Your task to perform on an android device: Go to Android settings Image 0: 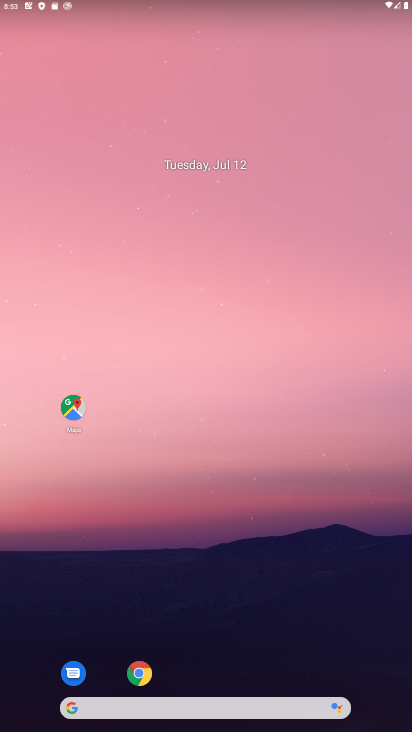
Step 0: drag from (169, 617) to (173, 267)
Your task to perform on an android device: Go to Android settings Image 1: 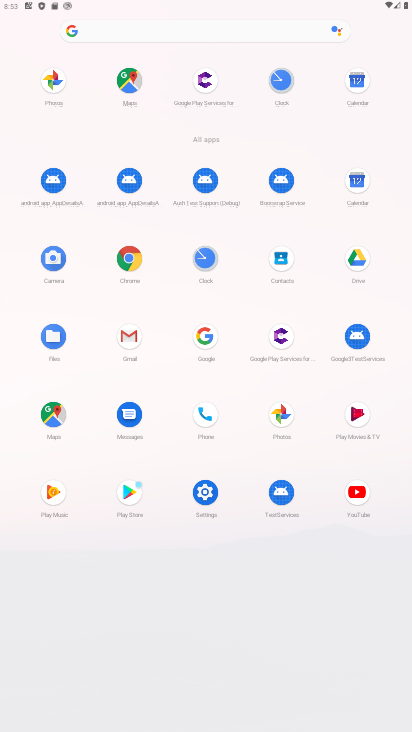
Step 1: click (208, 489)
Your task to perform on an android device: Go to Android settings Image 2: 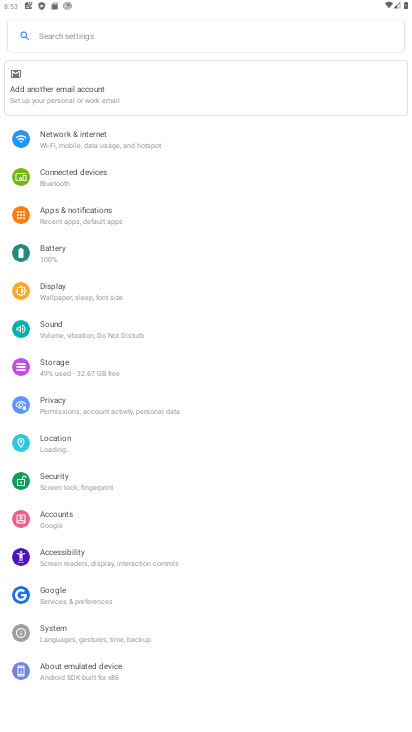
Step 2: task complete